Your task to perform on an android device: When is my next appointment? Image 0: 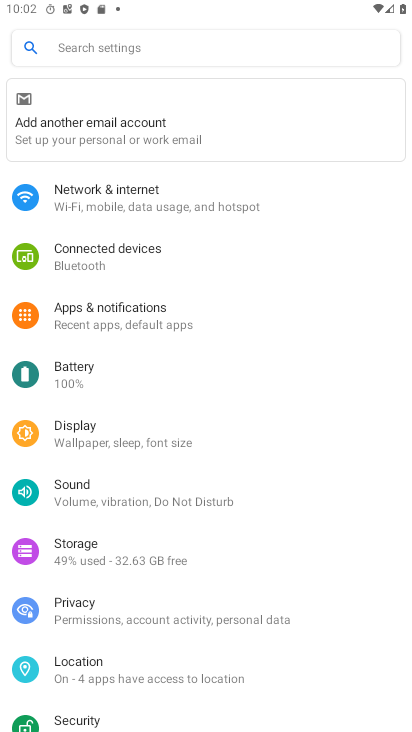
Step 0: press home button
Your task to perform on an android device: When is my next appointment? Image 1: 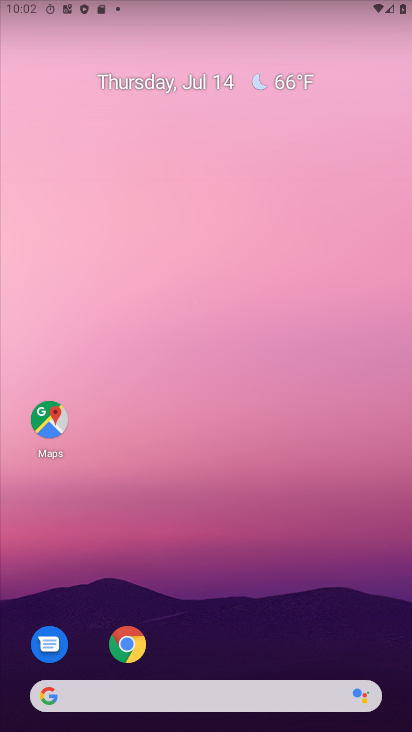
Step 1: drag from (253, 715) to (265, 199)
Your task to perform on an android device: When is my next appointment? Image 2: 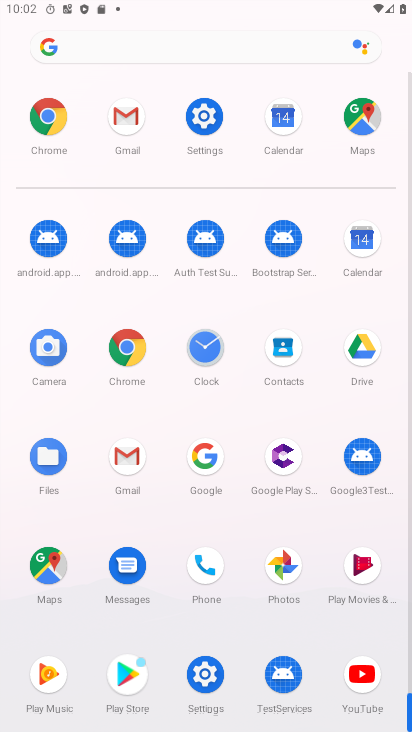
Step 2: click (356, 239)
Your task to perform on an android device: When is my next appointment? Image 3: 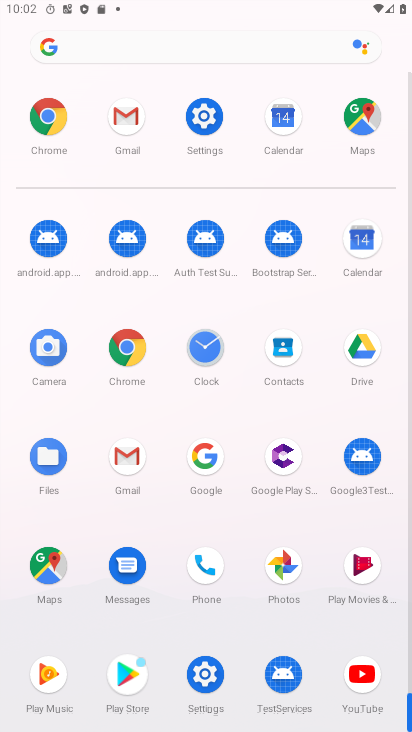
Step 3: click (360, 239)
Your task to perform on an android device: When is my next appointment? Image 4: 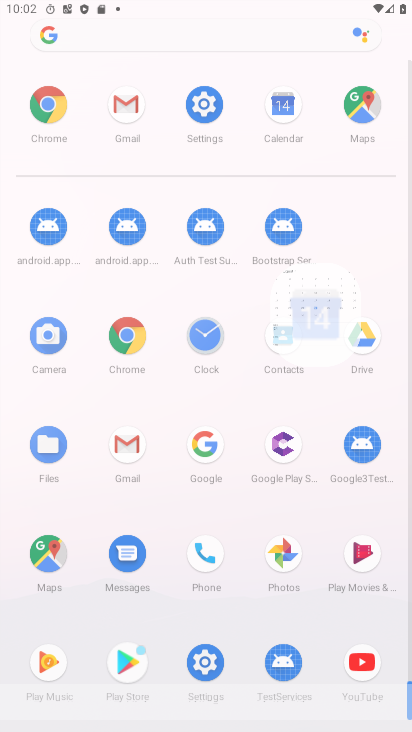
Step 4: click (361, 239)
Your task to perform on an android device: When is my next appointment? Image 5: 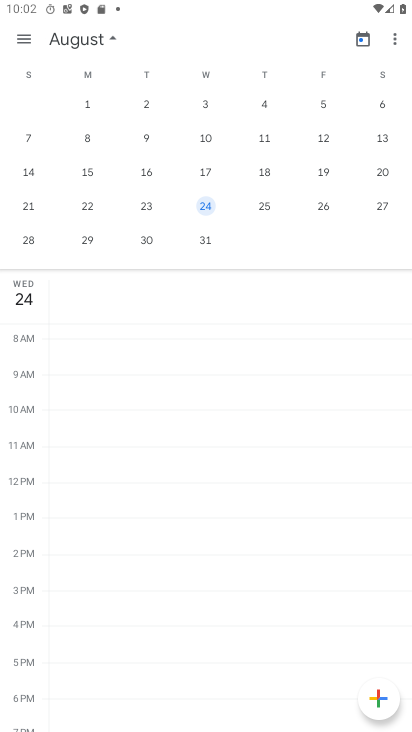
Step 5: drag from (95, 184) to (405, 248)
Your task to perform on an android device: When is my next appointment? Image 6: 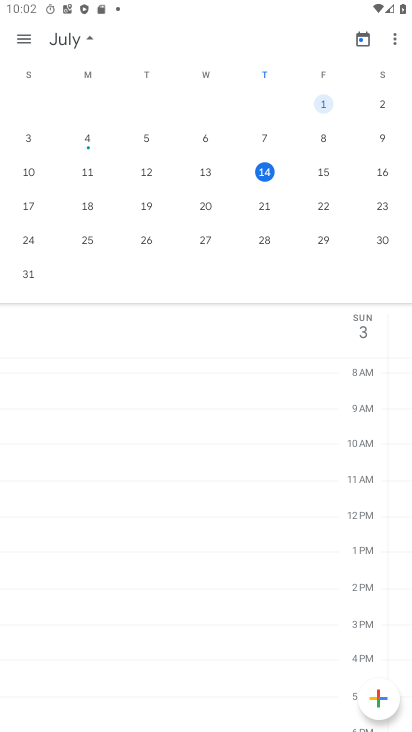
Step 6: drag from (71, 172) to (365, 241)
Your task to perform on an android device: When is my next appointment? Image 7: 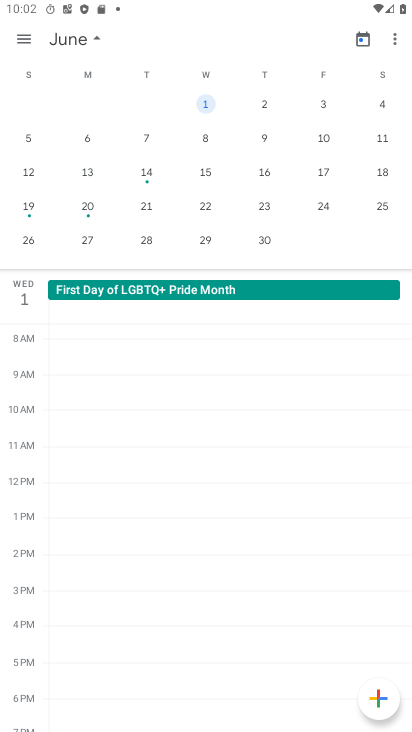
Step 7: drag from (344, 178) to (12, 240)
Your task to perform on an android device: When is my next appointment? Image 8: 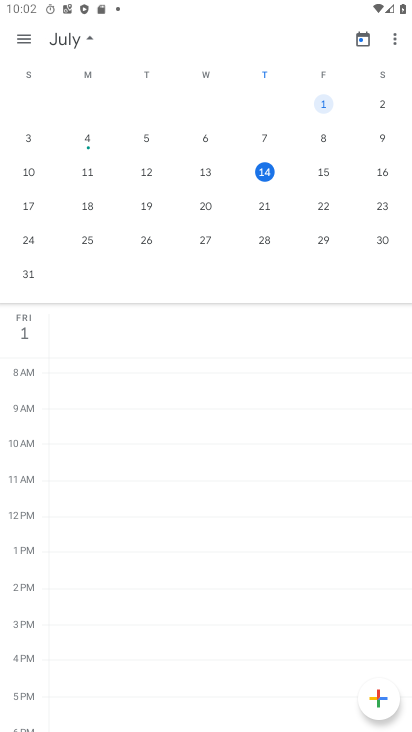
Step 8: drag from (174, 599) to (228, 196)
Your task to perform on an android device: When is my next appointment? Image 9: 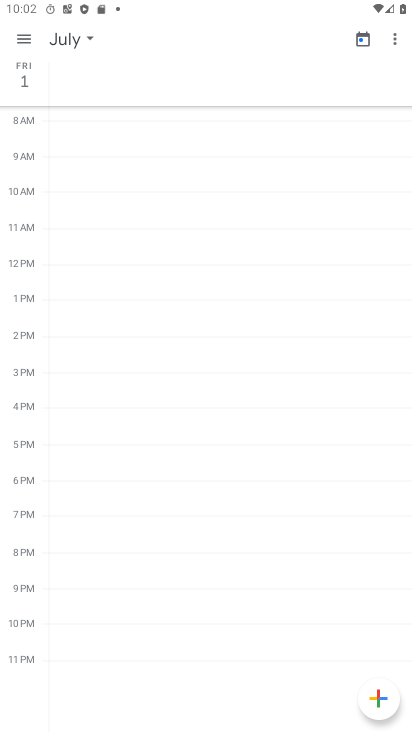
Step 9: drag from (231, 559) to (289, 349)
Your task to perform on an android device: When is my next appointment? Image 10: 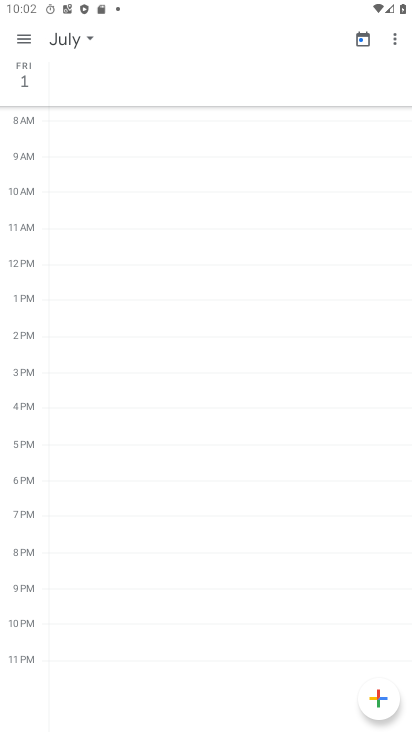
Step 10: drag from (252, 532) to (247, 720)
Your task to perform on an android device: When is my next appointment? Image 11: 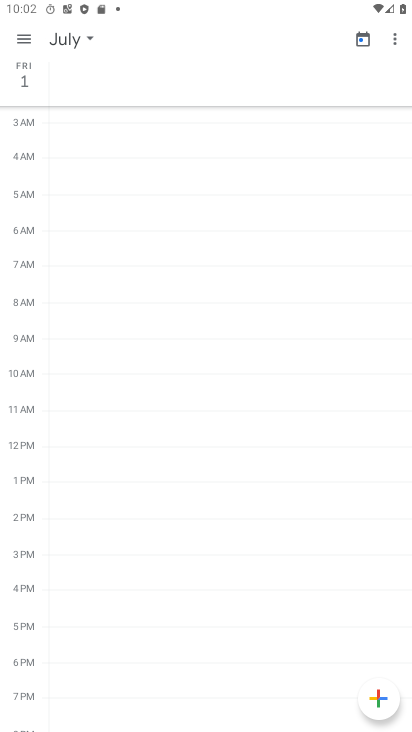
Step 11: click (193, 602)
Your task to perform on an android device: When is my next appointment? Image 12: 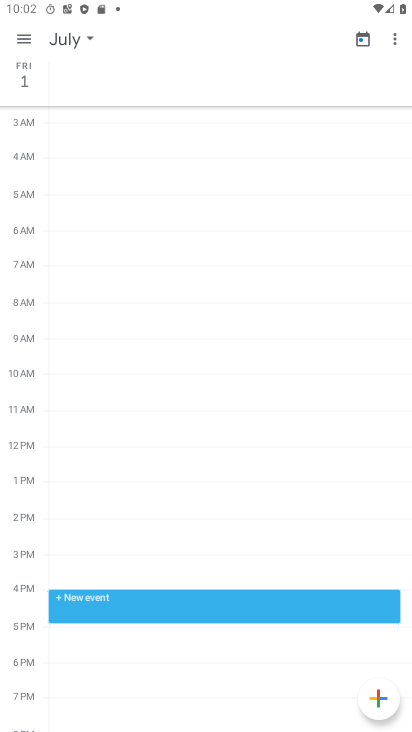
Step 12: drag from (225, 381) to (251, 537)
Your task to perform on an android device: When is my next appointment? Image 13: 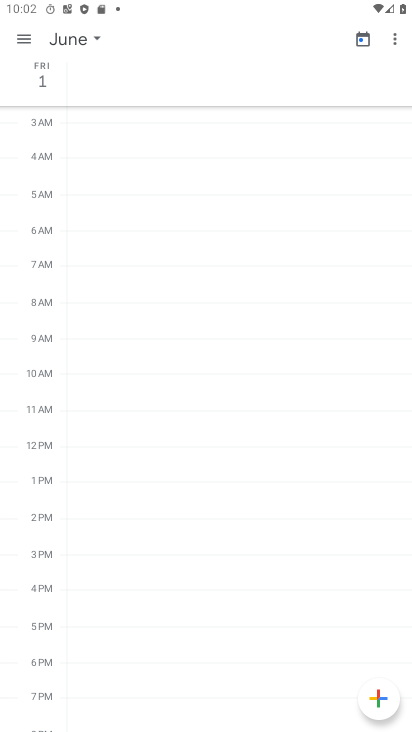
Step 13: drag from (228, 204) to (197, 629)
Your task to perform on an android device: When is my next appointment? Image 14: 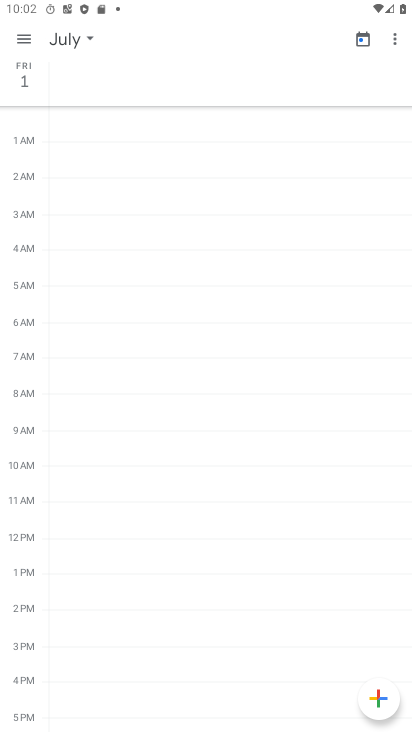
Step 14: drag from (175, 336) to (184, 665)
Your task to perform on an android device: When is my next appointment? Image 15: 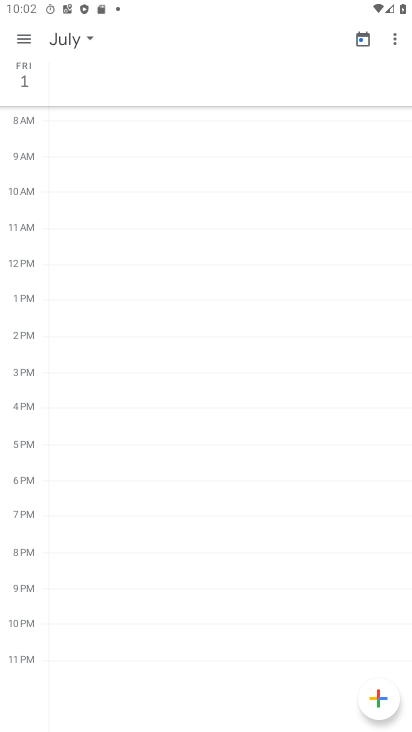
Step 15: click (254, 655)
Your task to perform on an android device: When is my next appointment? Image 16: 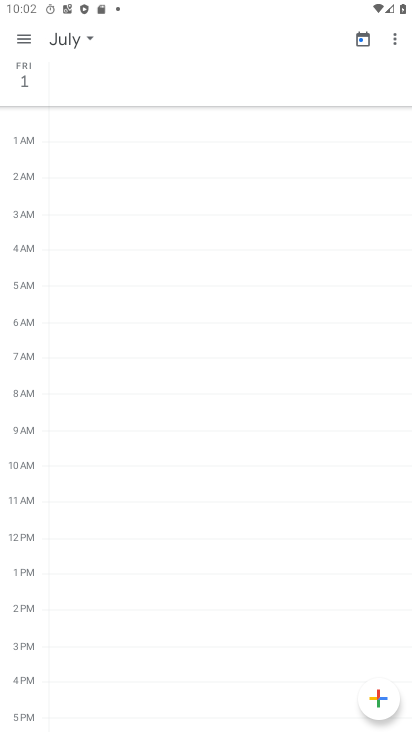
Step 16: click (278, 686)
Your task to perform on an android device: When is my next appointment? Image 17: 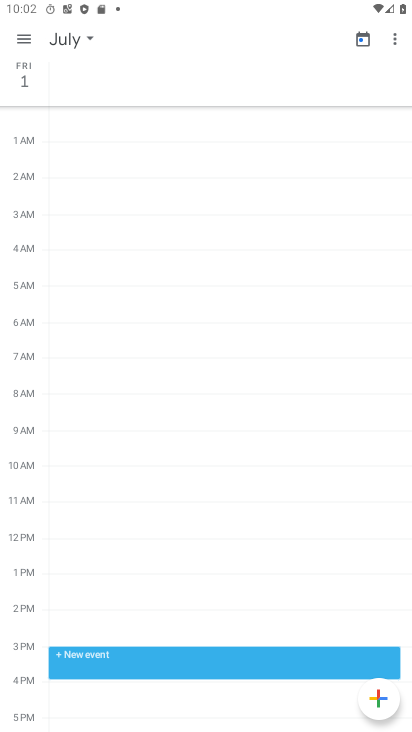
Step 17: task complete